Your task to perform on an android device: change notifications settings Image 0: 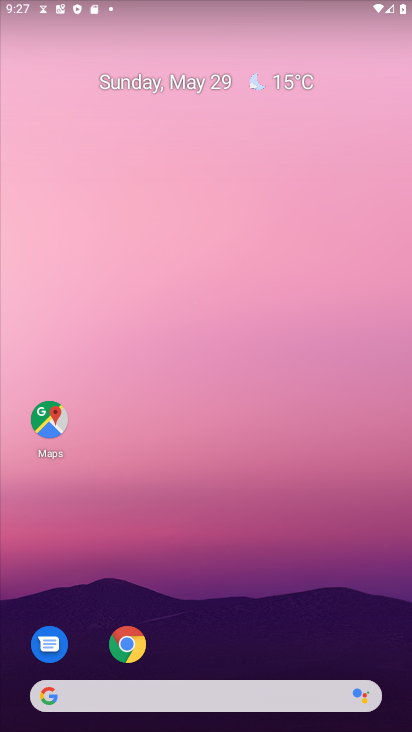
Step 0: drag from (256, 695) to (327, 382)
Your task to perform on an android device: change notifications settings Image 1: 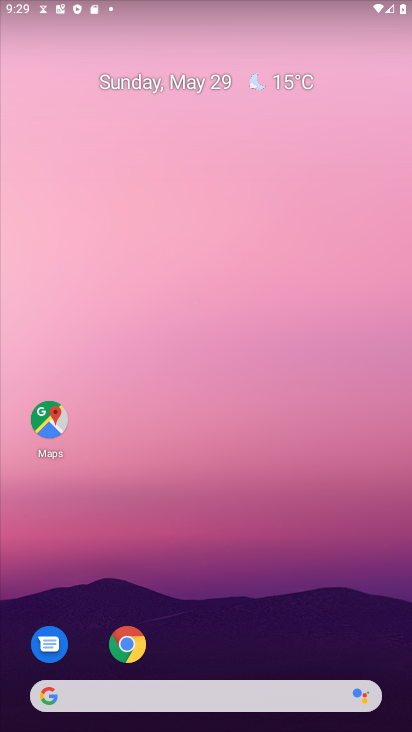
Step 1: drag from (232, 703) to (250, 421)
Your task to perform on an android device: change notifications settings Image 2: 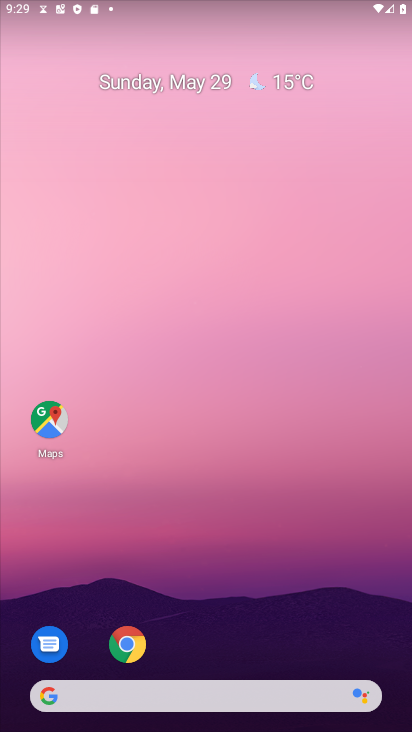
Step 2: drag from (224, 683) to (298, 349)
Your task to perform on an android device: change notifications settings Image 3: 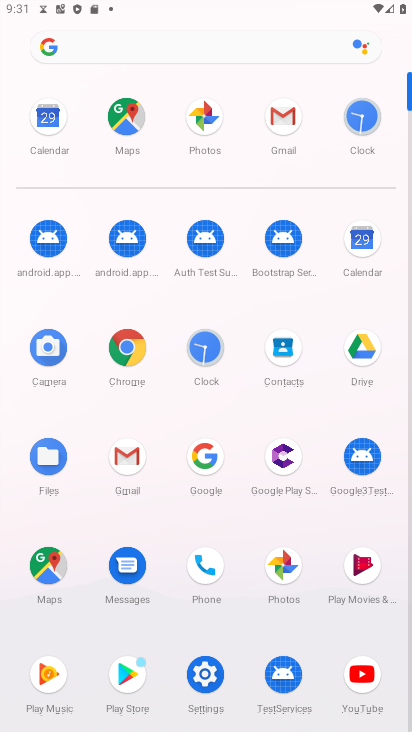
Step 3: click (307, 340)
Your task to perform on an android device: change notifications settings Image 4: 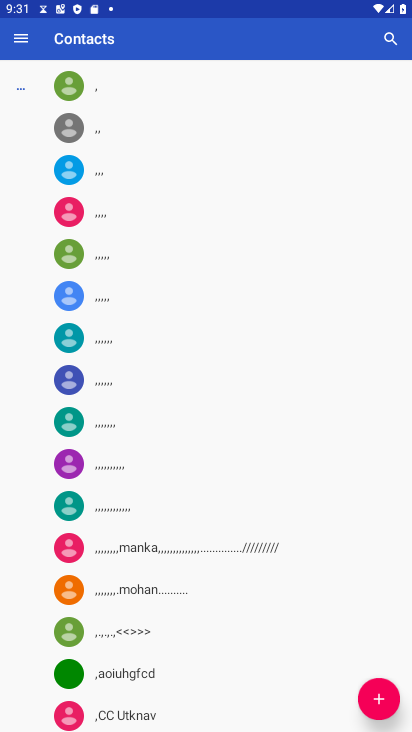
Step 4: press home button
Your task to perform on an android device: change notifications settings Image 5: 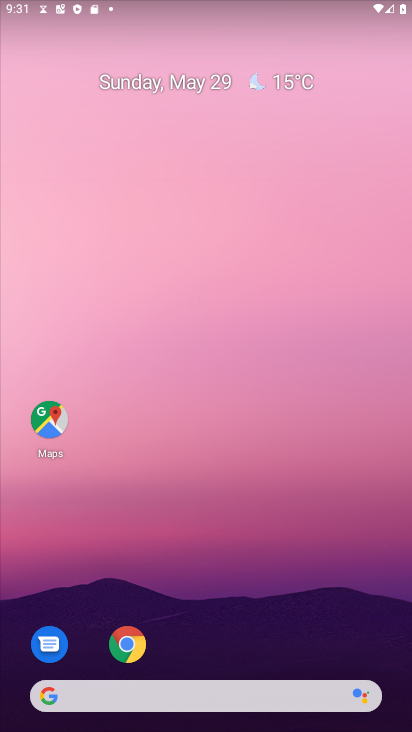
Step 5: drag from (198, 693) to (325, 220)
Your task to perform on an android device: change notifications settings Image 6: 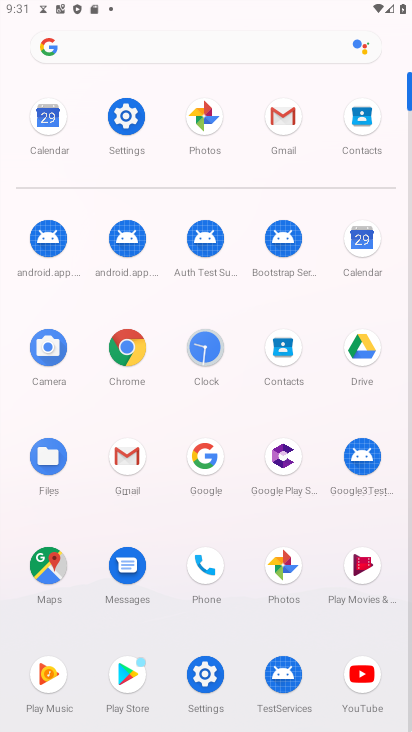
Step 6: click (209, 680)
Your task to perform on an android device: change notifications settings Image 7: 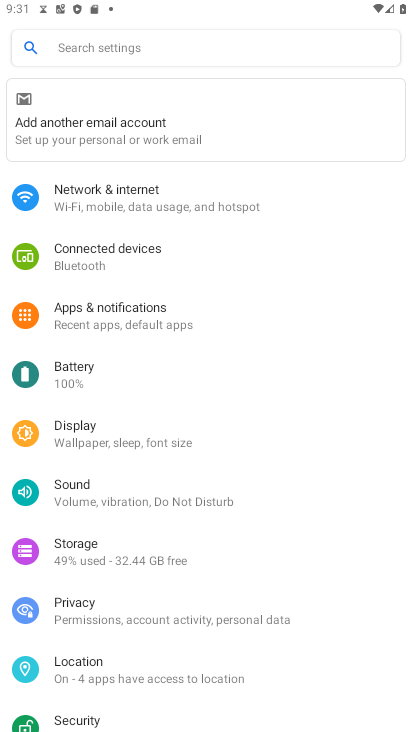
Step 7: click (110, 493)
Your task to perform on an android device: change notifications settings Image 8: 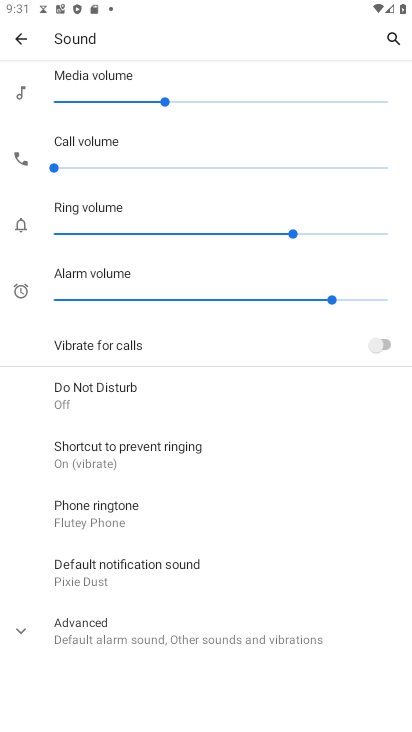
Step 8: click (182, 573)
Your task to perform on an android device: change notifications settings Image 9: 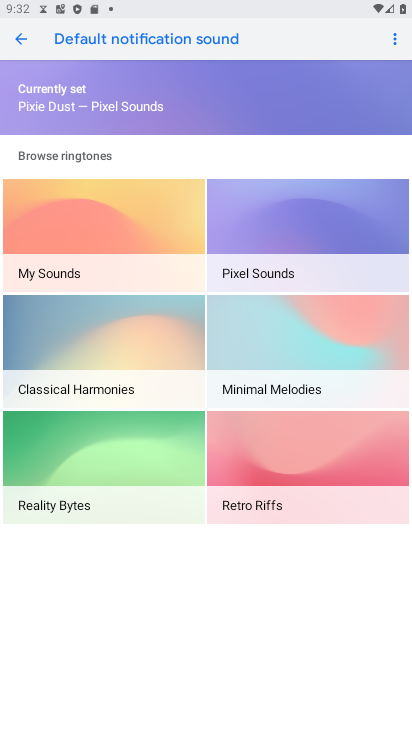
Step 9: click (156, 325)
Your task to perform on an android device: change notifications settings Image 10: 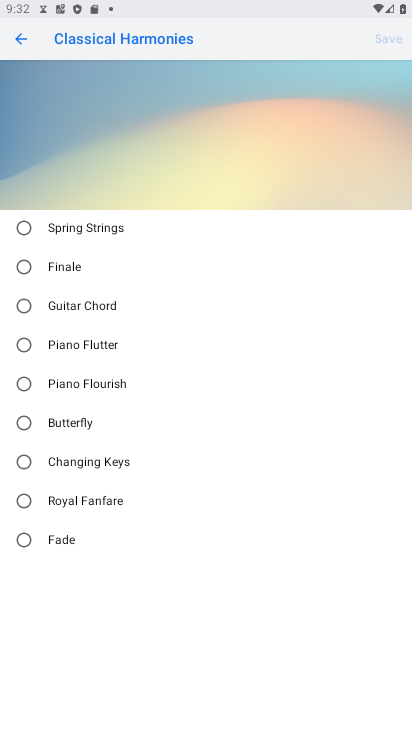
Step 10: click (72, 276)
Your task to perform on an android device: change notifications settings Image 11: 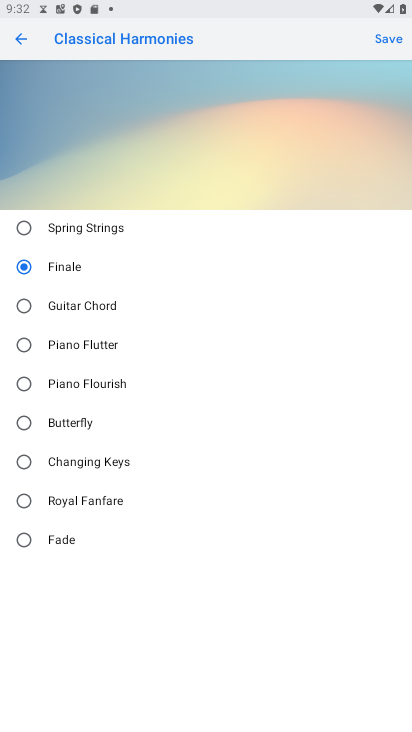
Step 11: task complete